Your task to perform on an android device: Check the weather Image 0: 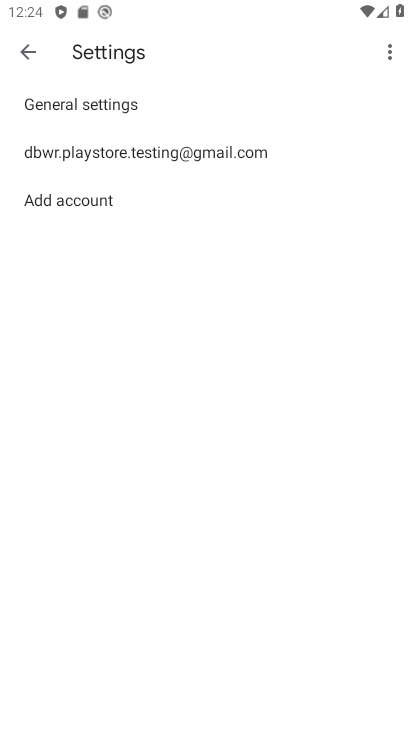
Step 0: press home button
Your task to perform on an android device: Check the weather Image 1: 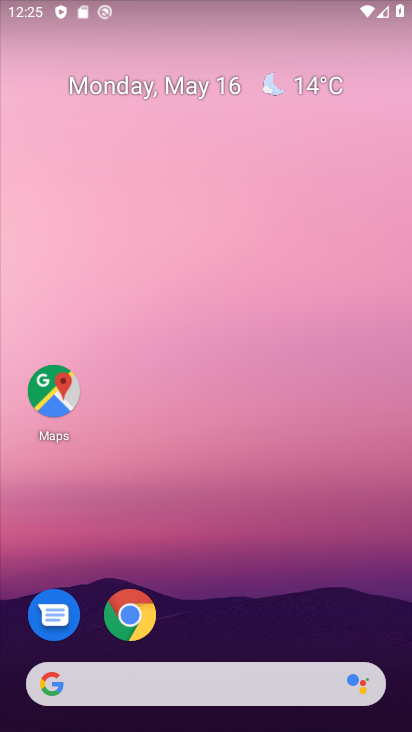
Step 1: drag from (339, 605) to (331, 196)
Your task to perform on an android device: Check the weather Image 2: 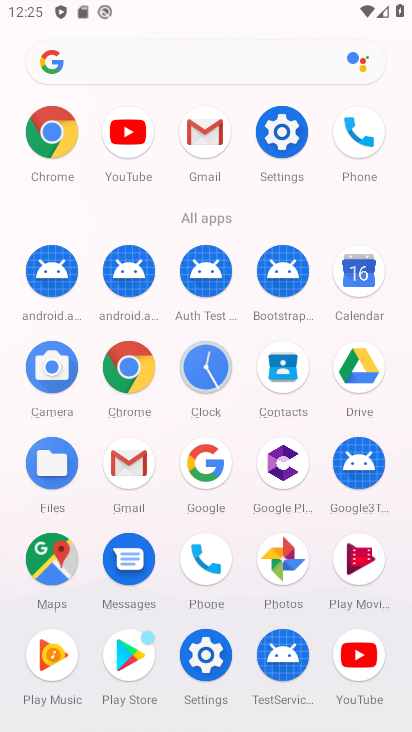
Step 2: drag from (251, 615) to (244, 350)
Your task to perform on an android device: Check the weather Image 3: 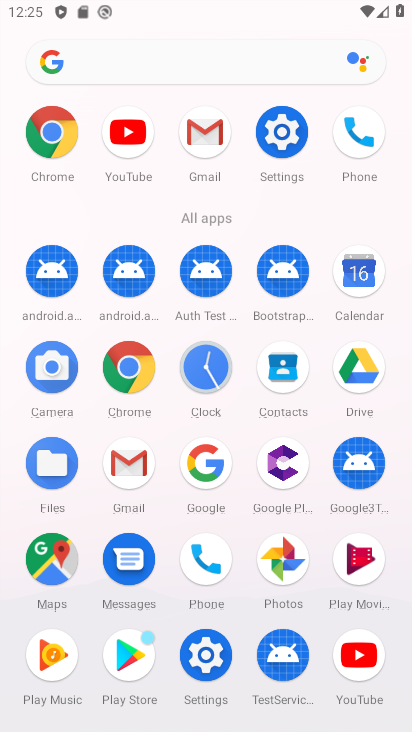
Step 3: click (39, 155)
Your task to perform on an android device: Check the weather Image 4: 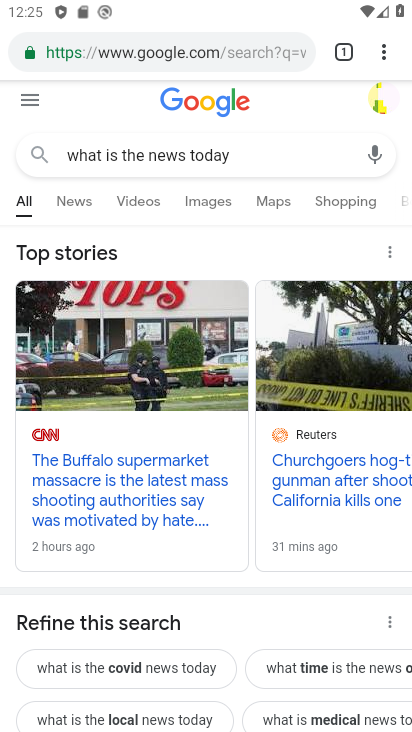
Step 4: click (222, 50)
Your task to perform on an android device: Check the weather Image 5: 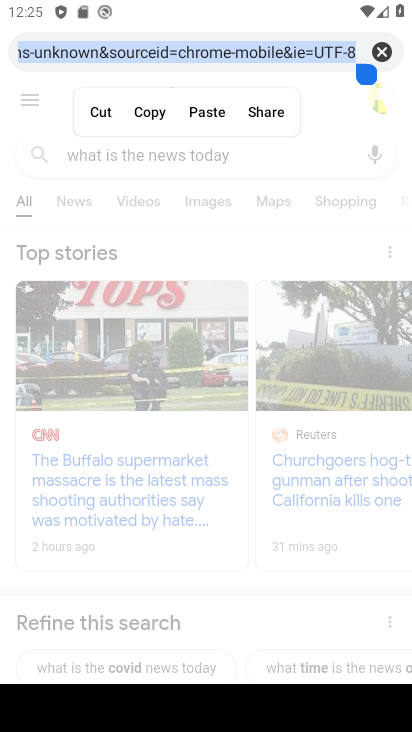
Step 5: click (386, 55)
Your task to perform on an android device: Check the weather Image 6: 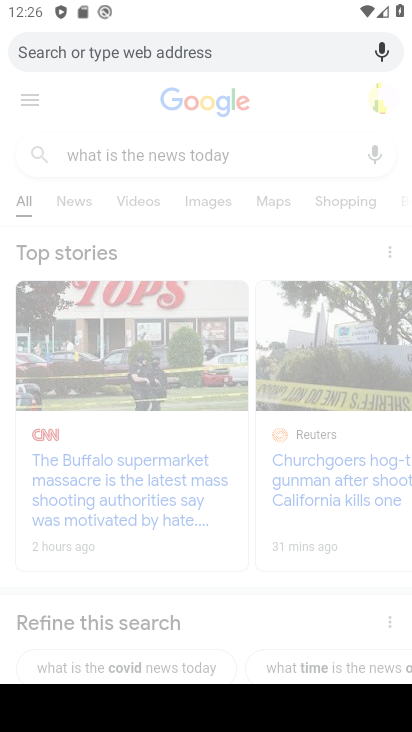
Step 6: type "check the weather"
Your task to perform on an android device: Check the weather Image 7: 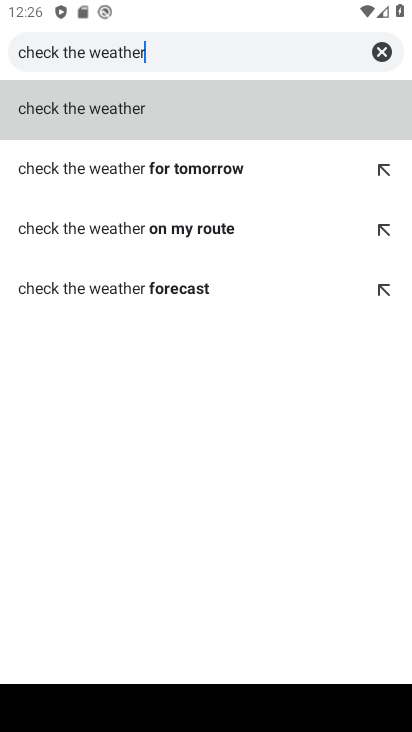
Step 7: click (183, 125)
Your task to perform on an android device: Check the weather Image 8: 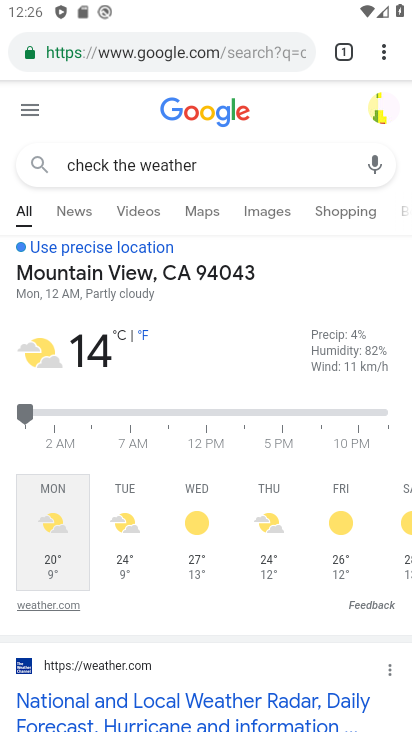
Step 8: task complete